Your task to perform on an android device: add a contact Image 0: 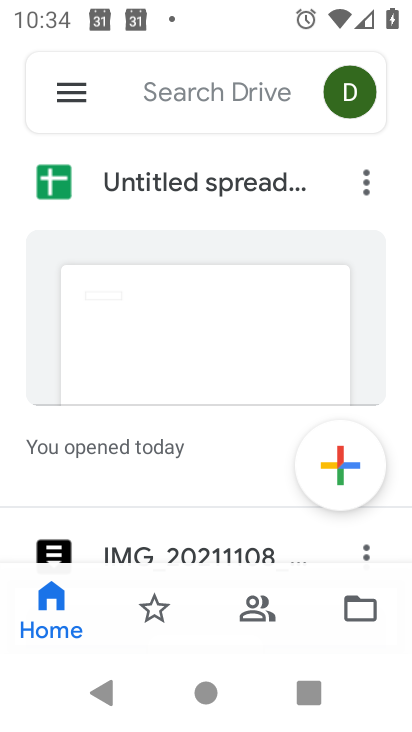
Step 0: press home button
Your task to perform on an android device: add a contact Image 1: 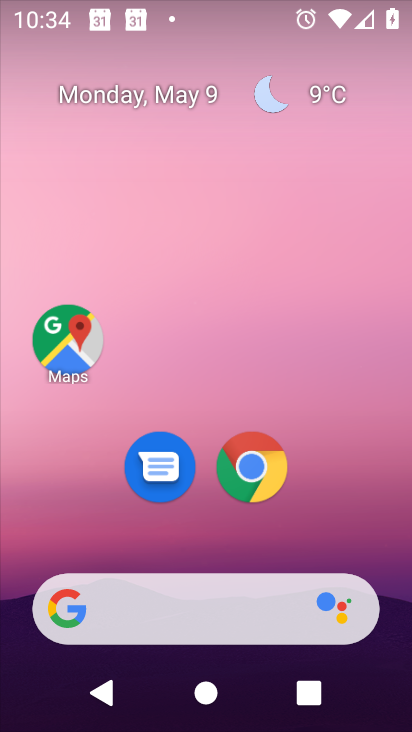
Step 1: drag from (368, 545) to (354, 12)
Your task to perform on an android device: add a contact Image 2: 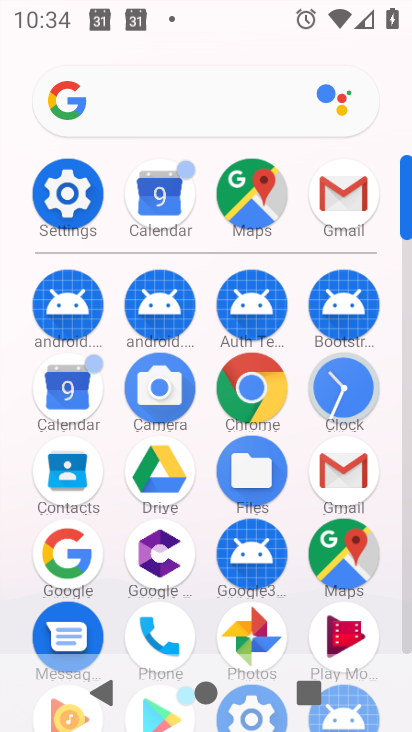
Step 2: click (61, 482)
Your task to perform on an android device: add a contact Image 3: 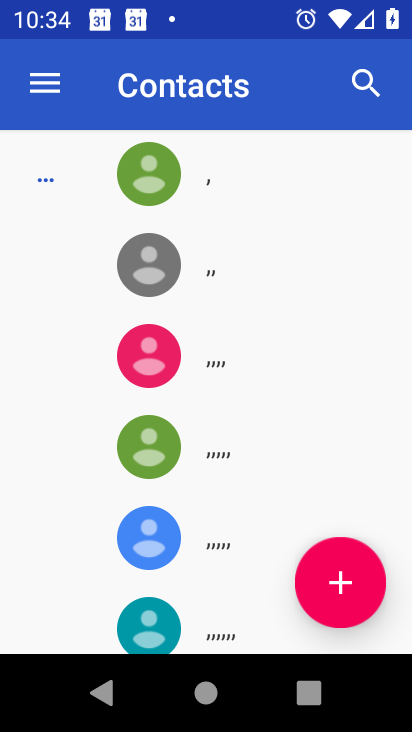
Step 3: click (336, 589)
Your task to perform on an android device: add a contact Image 4: 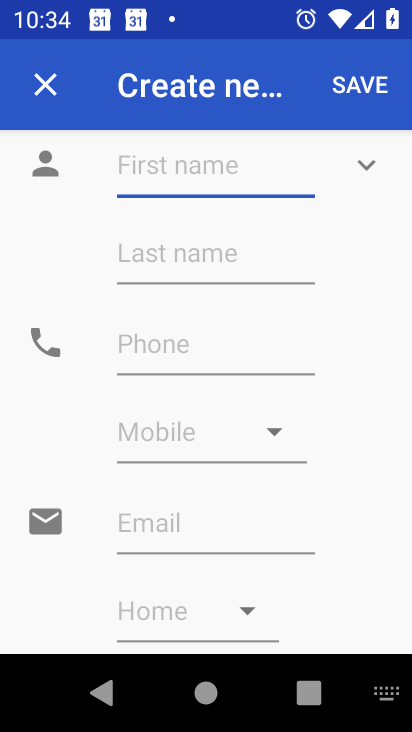
Step 4: click (131, 168)
Your task to perform on an android device: add a contact Image 5: 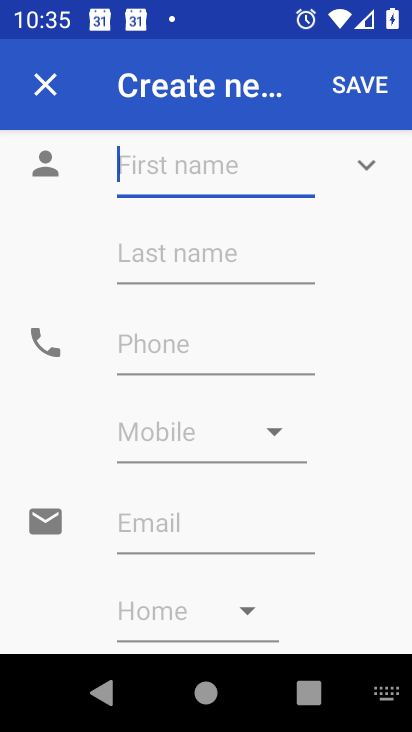
Step 5: type "usha"
Your task to perform on an android device: add a contact Image 6: 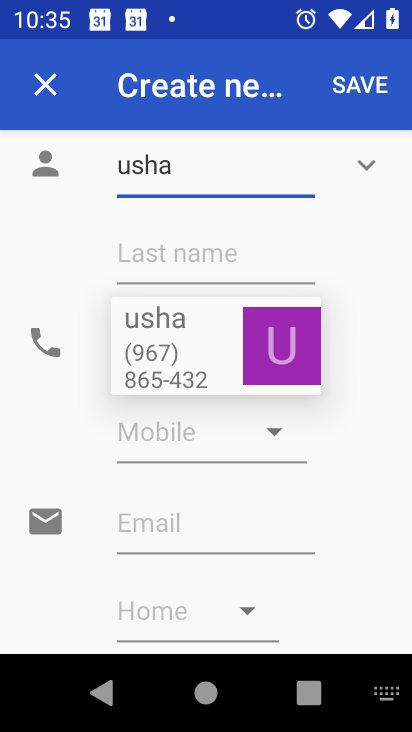
Step 6: click (337, 358)
Your task to perform on an android device: add a contact Image 7: 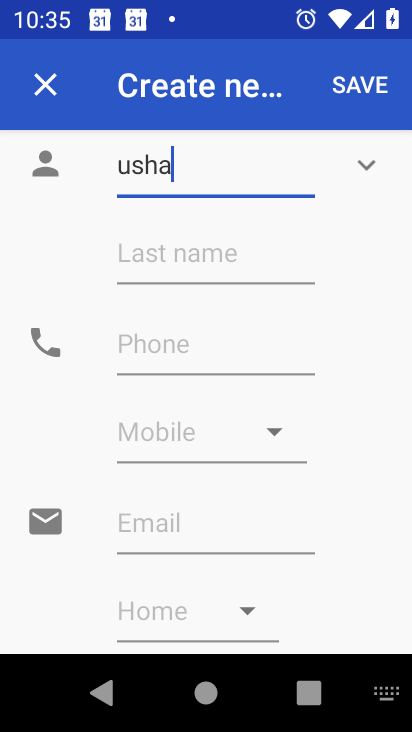
Step 7: click (278, 431)
Your task to perform on an android device: add a contact Image 8: 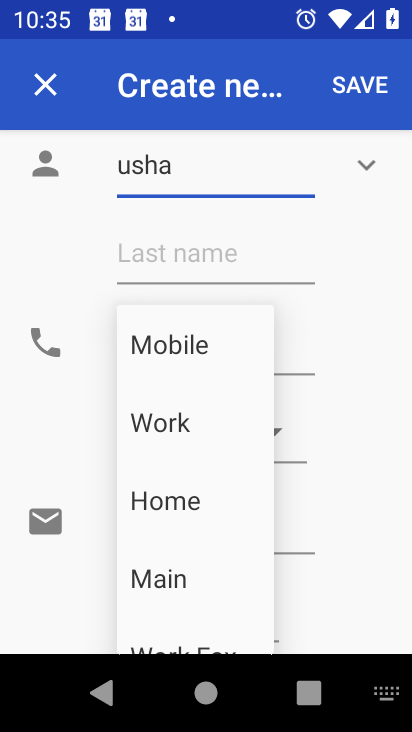
Step 8: click (327, 342)
Your task to perform on an android device: add a contact Image 9: 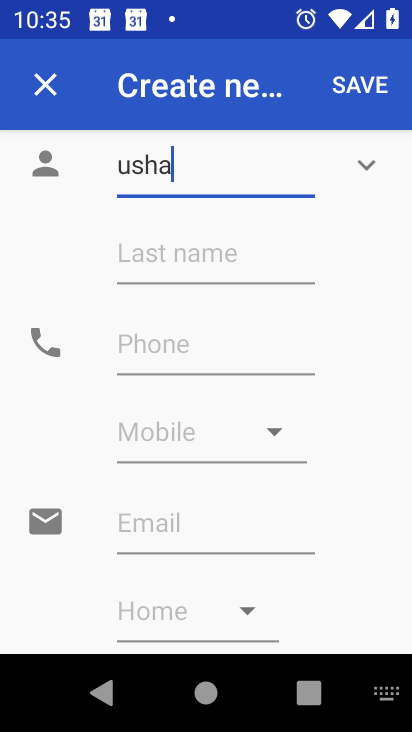
Step 9: click (176, 339)
Your task to perform on an android device: add a contact Image 10: 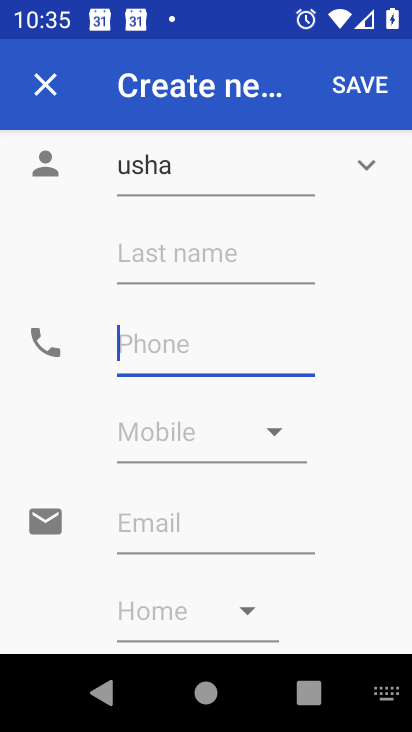
Step 10: type "76654433"
Your task to perform on an android device: add a contact Image 11: 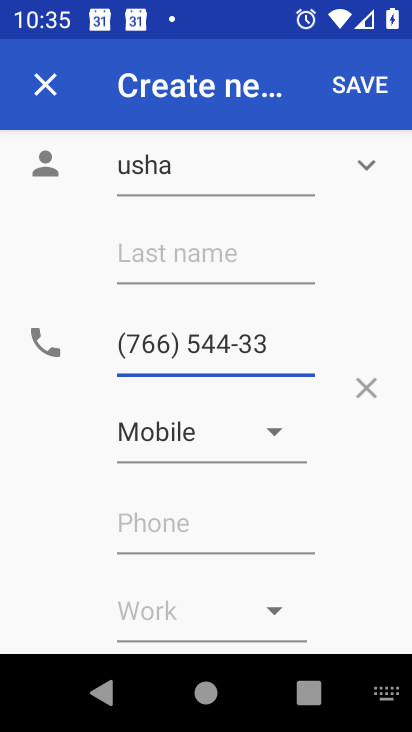
Step 11: click (379, 85)
Your task to perform on an android device: add a contact Image 12: 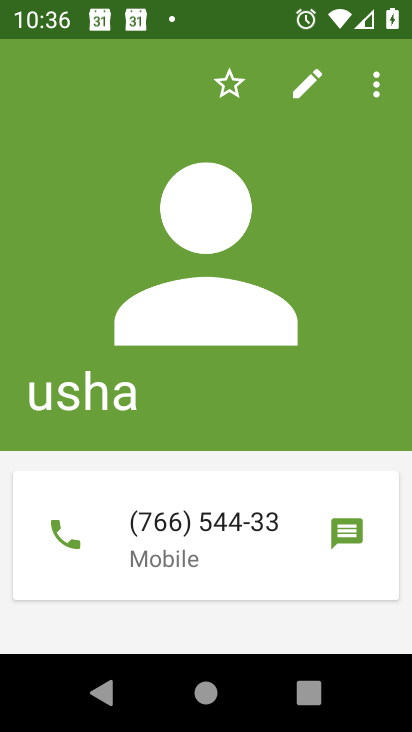
Step 12: task complete